Your task to perform on an android device: Open the phone app and click the voicemail tab. Image 0: 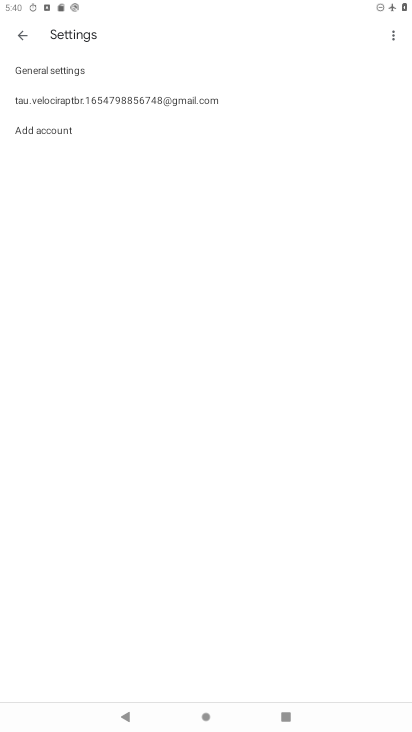
Step 0: press home button
Your task to perform on an android device: Open the phone app and click the voicemail tab. Image 1: 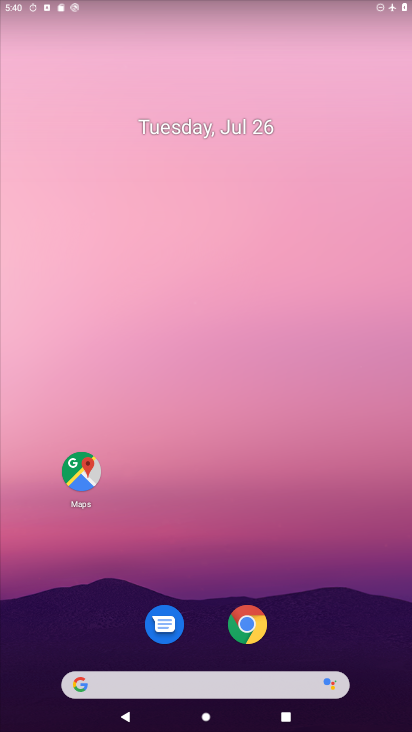
Step 1: drag from (130, 676) to (174, 92)
Your task to perform on an android device: Open the phone app and click the voicemail tab. Image 2: 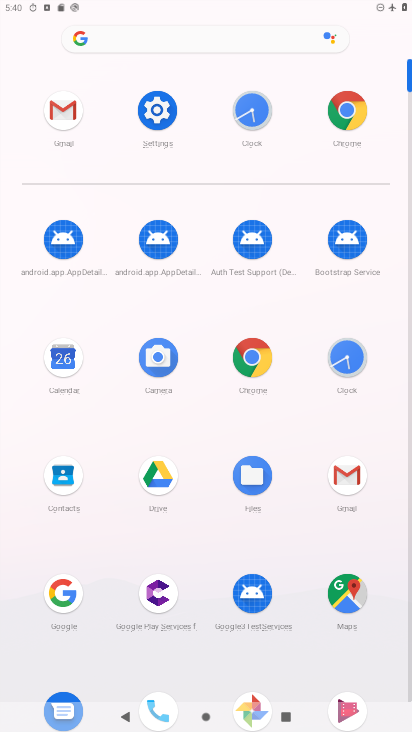
Step 2: drag from (169, 658) to (183, 330)
Your task to perform on an android device: Open the phone app and click the voicemail tab. Image 3: 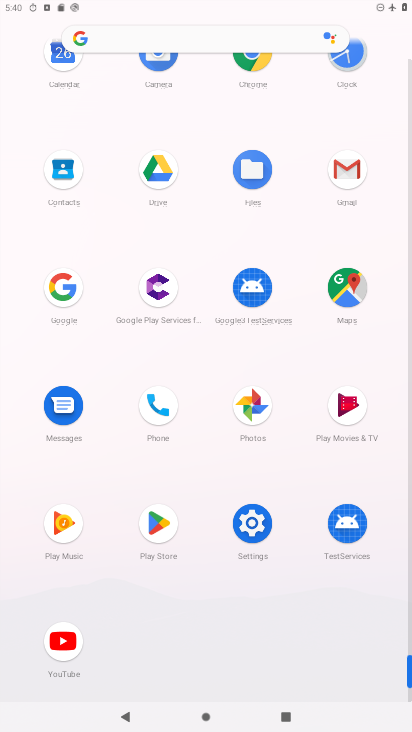
Step 3: click (160, 413)
Your task to perform on an android device: Open the phone app and click the voicemail tab. Image 4: 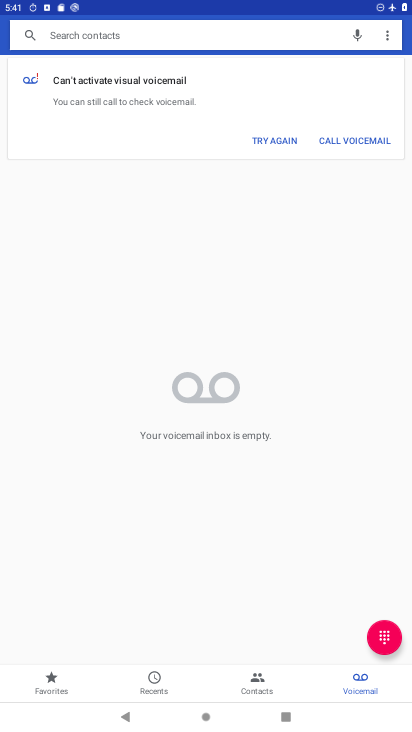
Step 4: click (354, 684)
Your task to perform on an android device: Open the phone app and click the voicemail tab. Image 5: 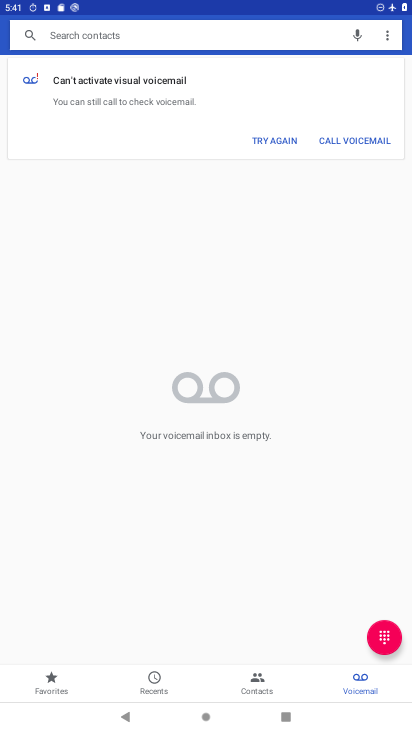
Step 5: task complete